Your task to perform on an android device: turn on airplane mode Image 0: 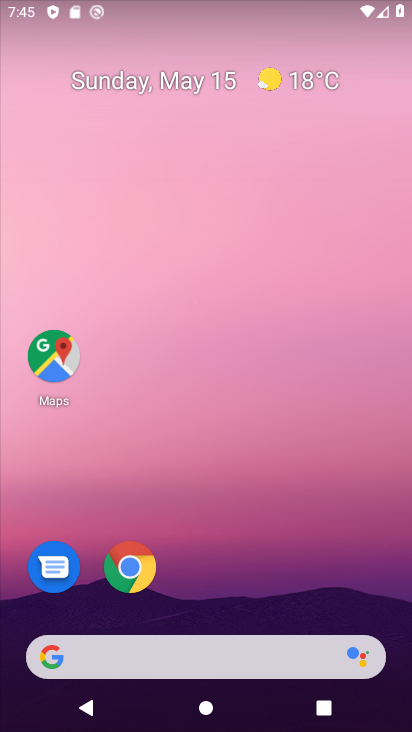
Step 0: drag from (281, 711) to (273, 45)
Your task to perform on an android device: turn on airplane mode Image 1: 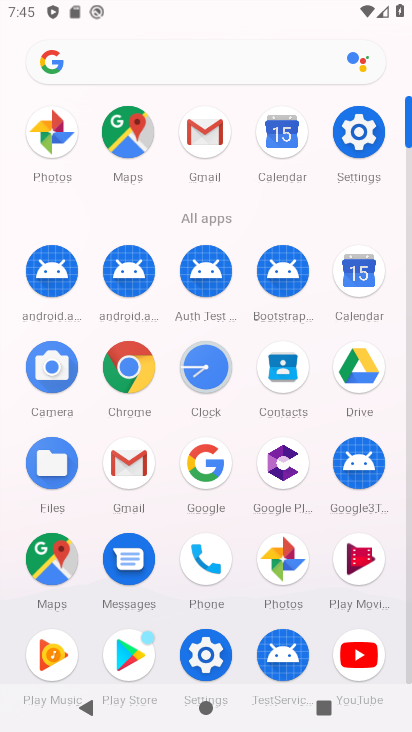
Step 1: click (363, 126)
Your task to perform on an android device: turn on airplane mode Image 2: 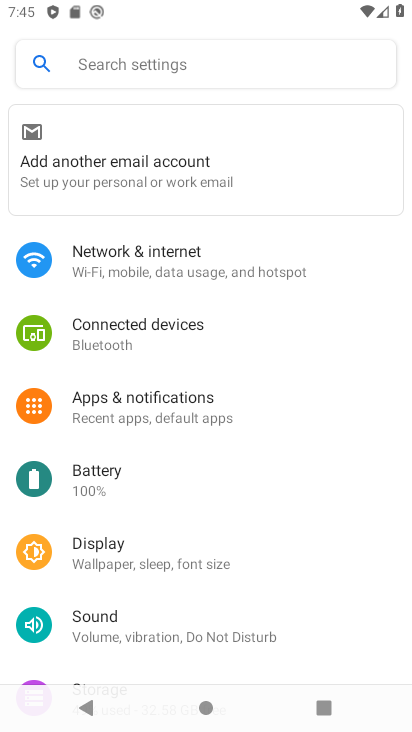
Step 2: click (272, 257)
Your task to perform on an android device: turn on airplane mode Image 3: 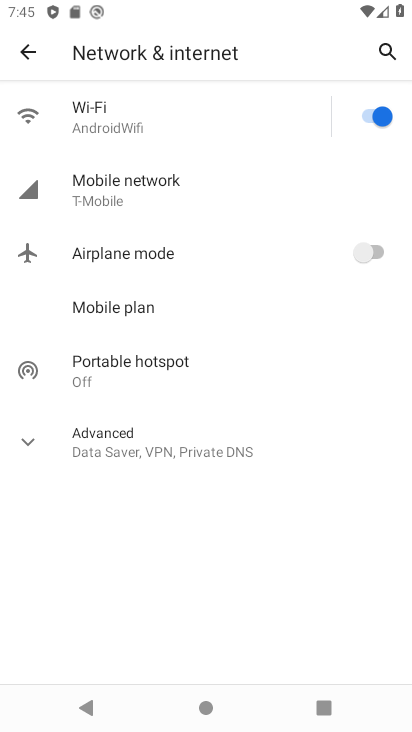
Step 3: click (378, 249)
Your task to perform on an android device: turn on airplane mode Image 4: 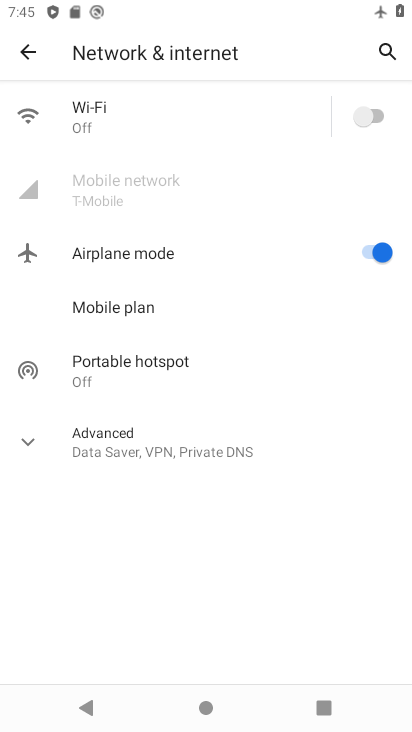
Step 4: task complete